Your task to perform on an android device: What is the news today? Image 0: 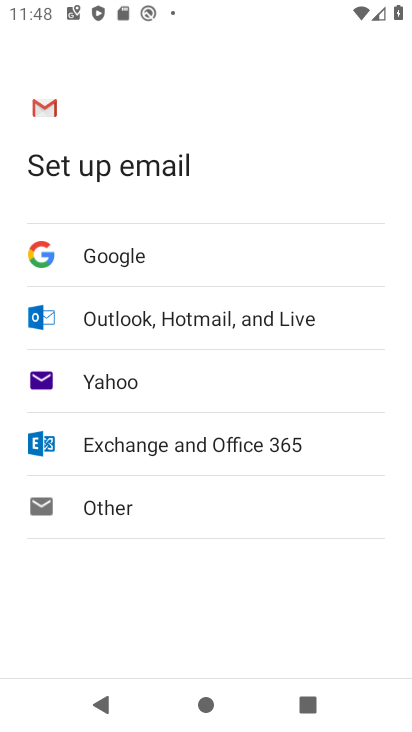
Step 0: press back button
Your task to perform on an android device: What is the news today? Image 1: 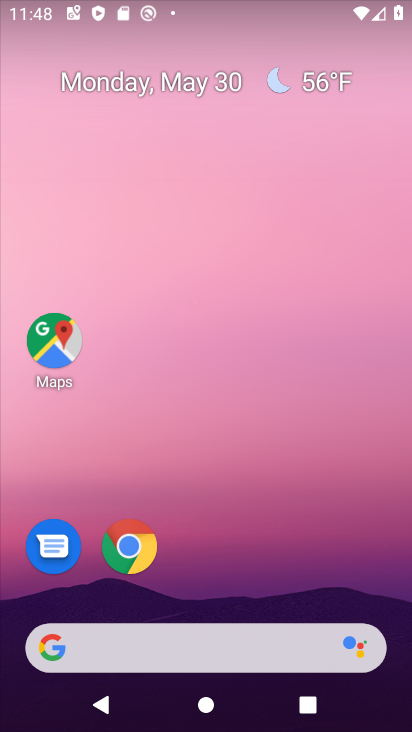
Step 1: drag from (259, 576) to (205, 147)
Your task to perform on an android device: What is the news today? Image 2: 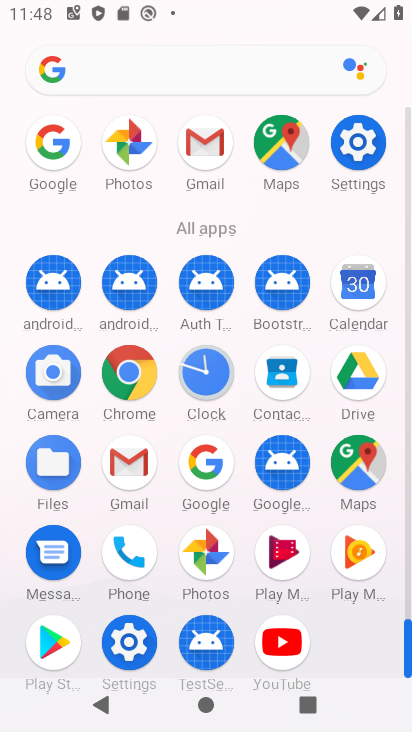
Step 2: click (48, 143)
Your task to perform on an android device: What is the news today? Image 3: 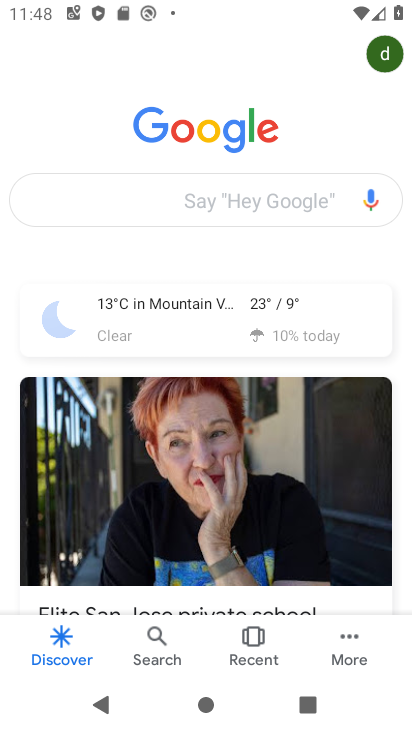
Step 3: click (139, 196)
Your task to perform on an android device: What is the news today? Image 4: 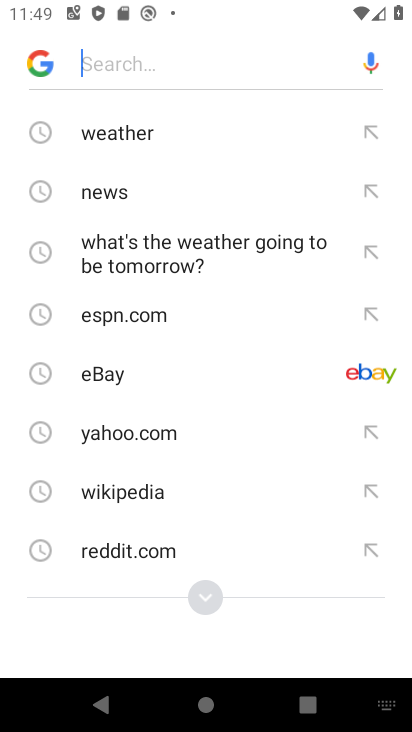
Step 4: type "news today"
Your task to perform on an android device: What is the news today? Image 5: 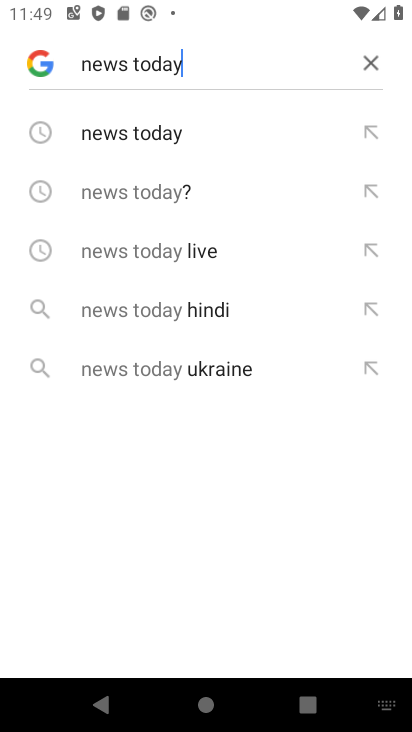
Step 5: click (175, 189)
Your task to perform on an android device: What is the news today? Image 6: 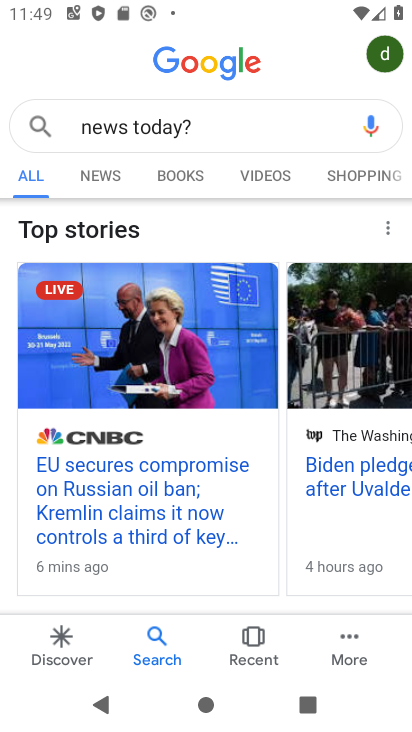
Step 6: click (142, 472)
Your task to perform on an android device: What is the news today? Image 7: 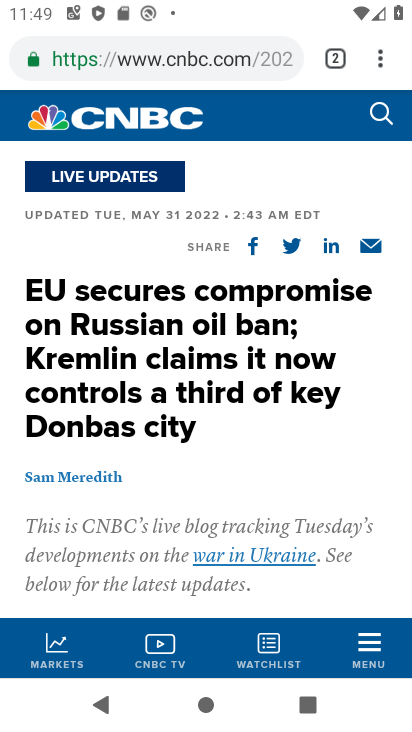
Step 7: task complete